Your task to perform on an android device: toggle data saver in the chrome app Image 0: 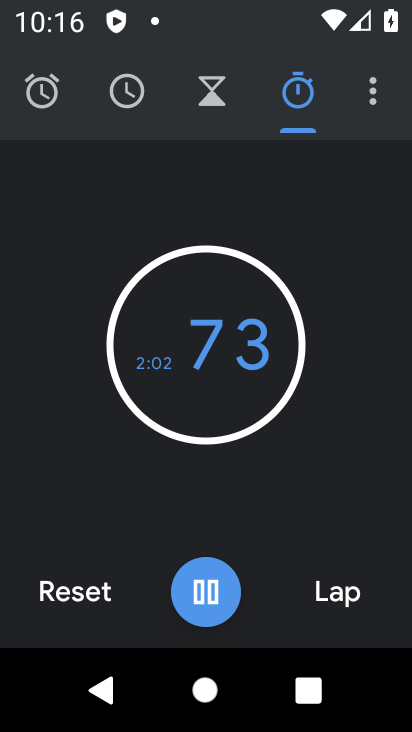
Step 0: press back button
Your task to perform on an android device: toggle data saver in the chrome app Image 1: 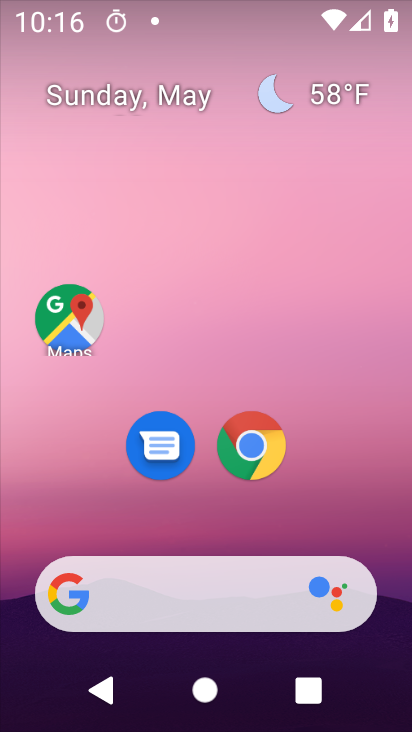
Step 1: drag from (342, 522) to (206, 42)
Your task to perform on an android device: toggle data saver in the chrome app Image 2: 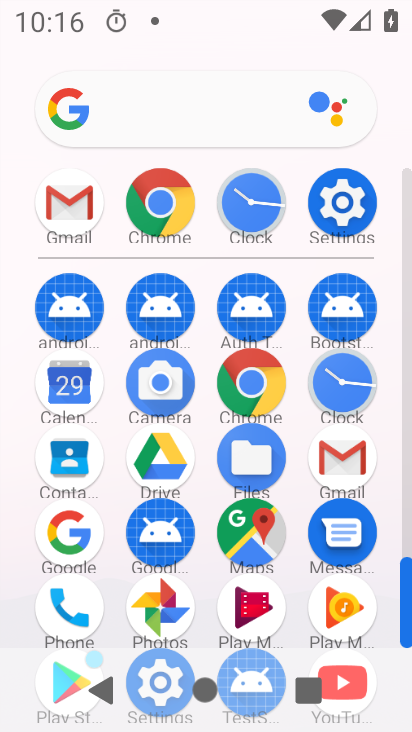
Step 2: drag from (1, 474) to (6, 257)
Your task to perform on an android device: toggle data saver in the chrome app Image 3: 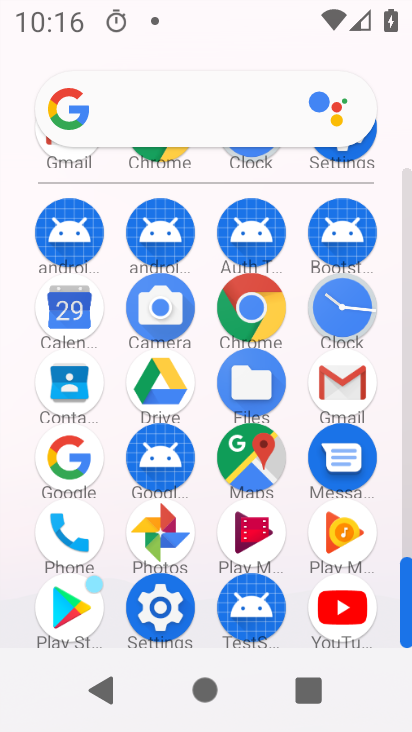
Step 3: click (244, 311)
Your task to perform on an android device: toggle data saver in the chrome app Image 4: 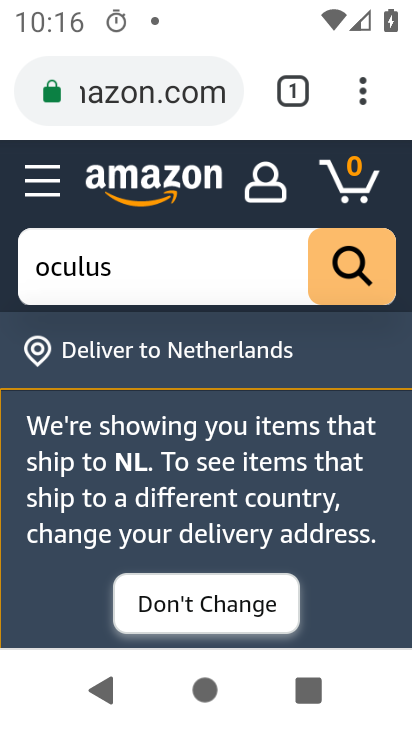
Step 4: drag from (357, 90) to (241, 461)
Your task to perform on an android device: toggle data saver in the chrome app Image 5: 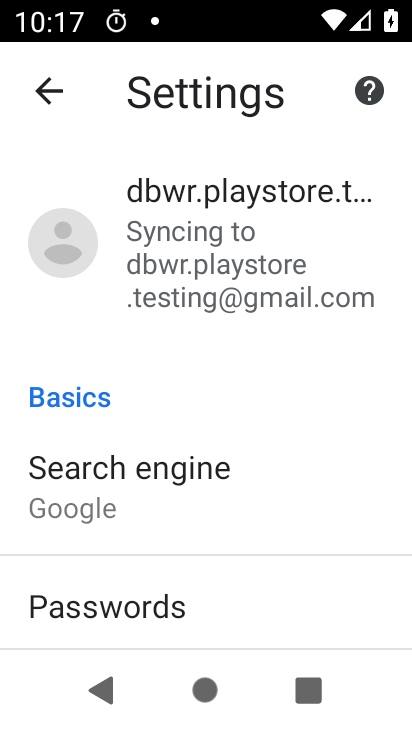
Step 5: drag from (252, 512) to (249, 127)
Your task to perform on an android device: toggle data saver in the chrome app Image 6: 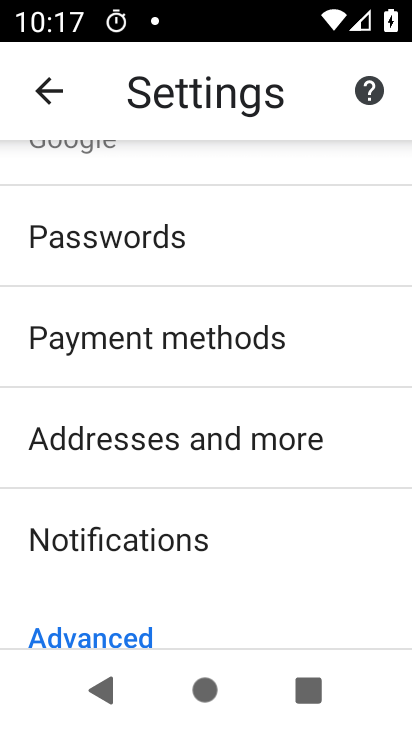
Step 6: drag from (236, 575) to (271, 141)
Your task to perform on an android device: toggle data saver in the chrome app Image 7: 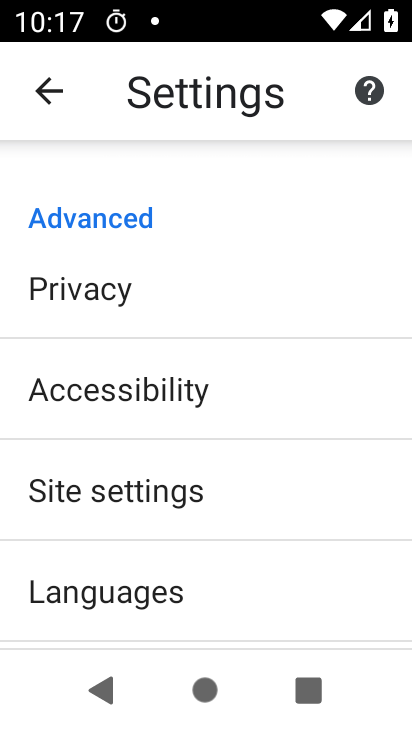
Step 7: drag from (262, 548) to (264, 206)
Your task to perform on an android device: toggle data saver in the chrome app Image 8: 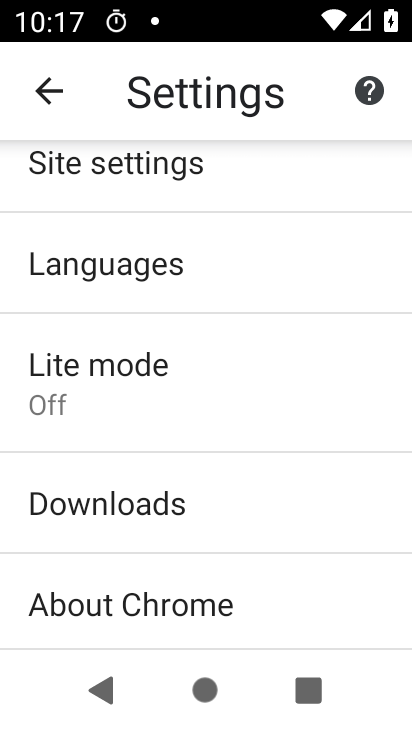
Step 8: drag from (217, 529) to (222, 172)
Your task to perform on an android device: toggle data saver in the chrome app Image 9: 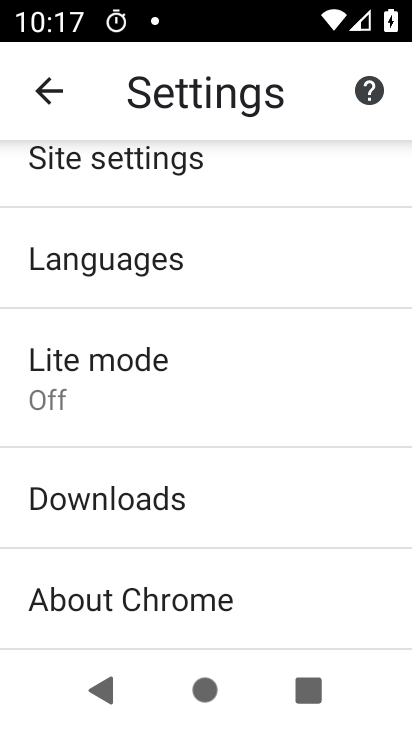
Step 9: click (204, 383)
Your task to perform on an android device: toggle data saver in the chrome app Image 10: 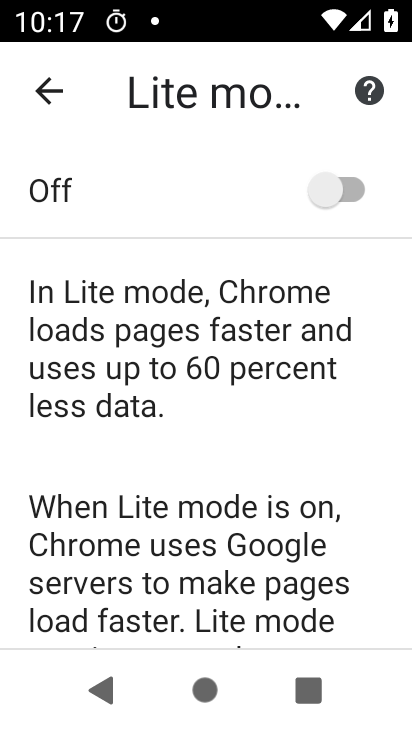
Step 10: task complete